Your task to perform on an android device: clear all cookies in the chrome app Image 0: 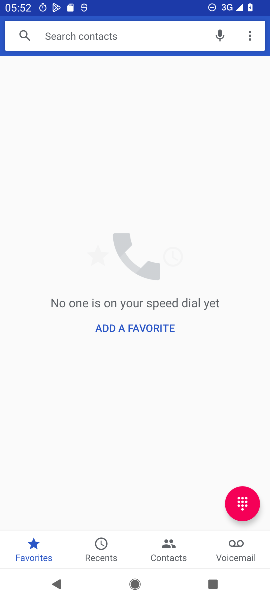
Step 0: press home button
Your task to perform on an android device: clear all cookies in the chrome app Image 1: 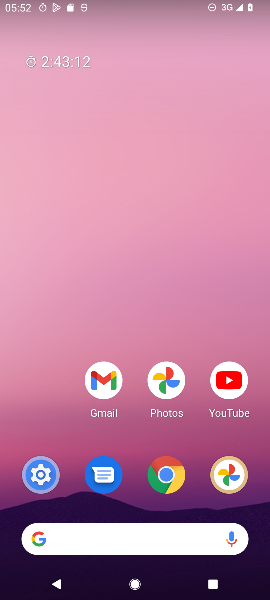
Step 1: drag from (58, 444) to (64, 187)
Your task to perform on an android device: clear all cookies in the chrome app Image 2: 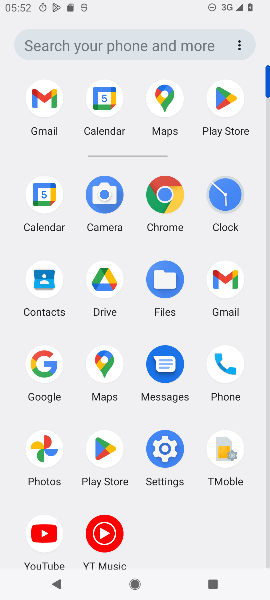
Step 2: click (162, 190)
Your task to perform on an android device: clear all cookies in the chrome app Image 3: 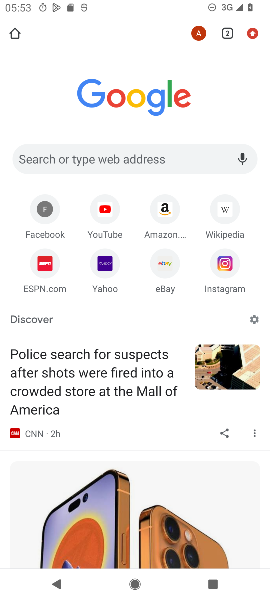
Step 3: click (253, 32)
Your task to perform on an android device: clear all cookies in the chrome app Image 4: 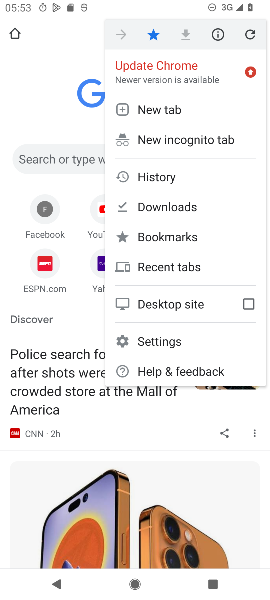
Step 4: click (200, 348)
Your task to perform on an android device: clear all cookies in the chrome app Image 5: 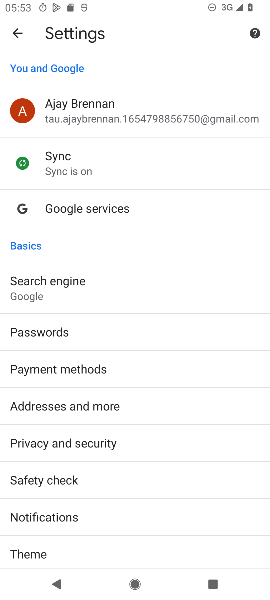
Step 5: drag from (196, 477) to (201, 386)
Your task to perform on an android device: clear all cookies in the chrome app Image 6: 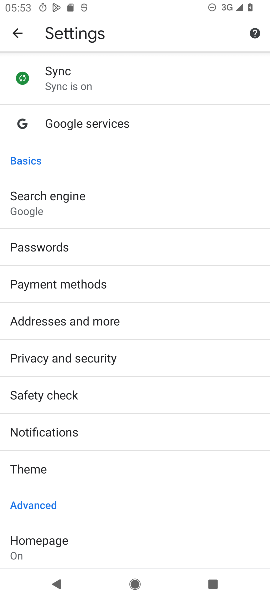
Step 6: click (180, 367)
Your task to perform on an android device: clear all cookies in the chrome app Image 7: 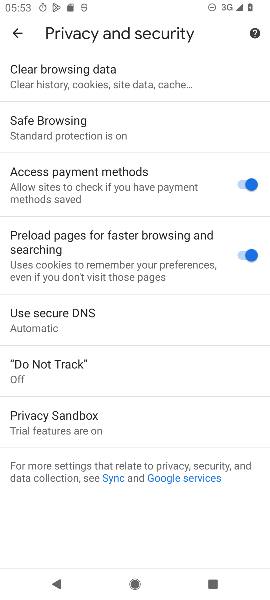
Step 7: click (119, 69)
Your task to perform on an android device: clear all cookies in the chrome app Image 8: 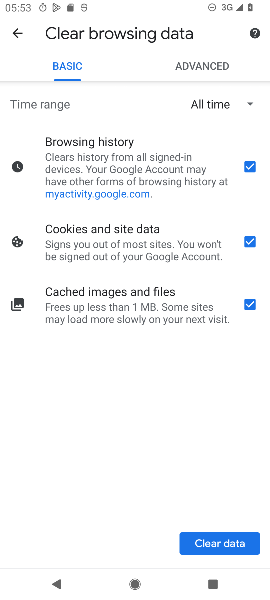
Step 8: click (207, 538)
Your task to perform on an android device: clear all cookies in the chrome app Image 9: 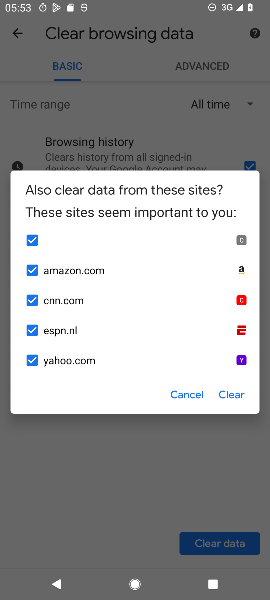
Step 9: click (233, 391)
Your task to perform on an android device: clear all cookies in the chrome app Image 10: 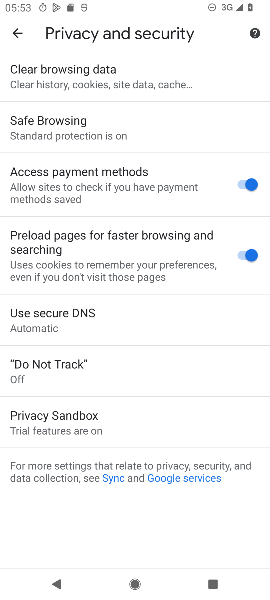
Step 10: task complete